Your task to perform on an android device: turn pop-ups on in chrome Image 0: 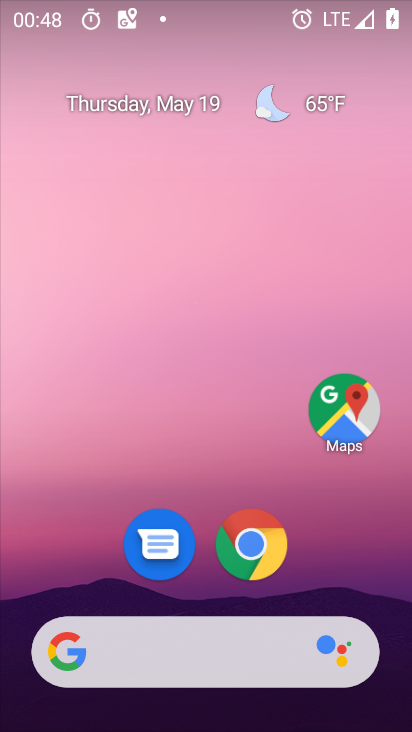
Step 0: drag from (361, 572) to (339, 82)
Your task to perform on an android device: turn pop-ups on in chrome Image 1: 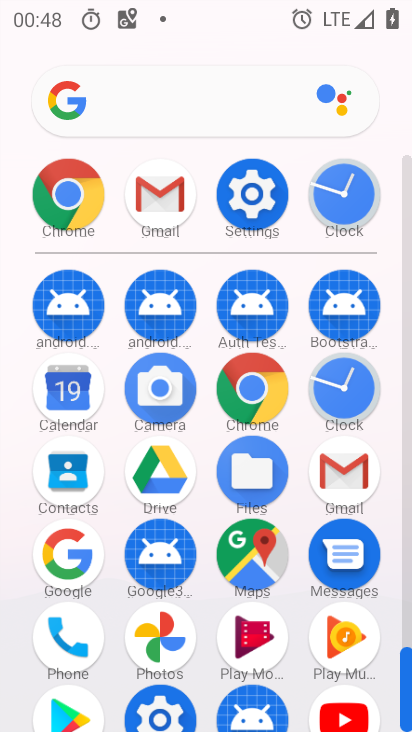
Step 1: click (259, 384)
Your task to perform on an android device: turn pop-ups on in chrome Image 2: 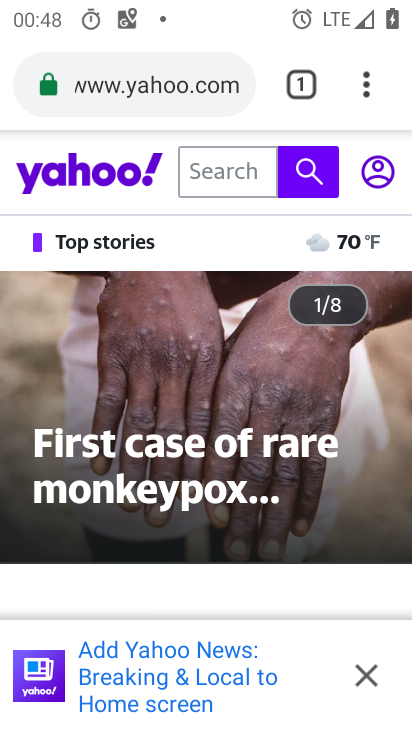
Step 2: click (365, 94)
Your task to perform on an android device: turn pop-ups on in chrome Image 3: 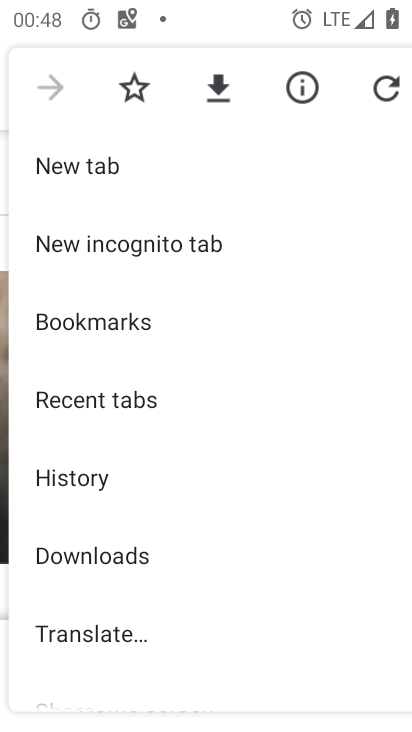
Step 3: drag from (293, 631) to (285, 403)
Your task to perform on an android device: turn pop-ups on in chrome Image 4: 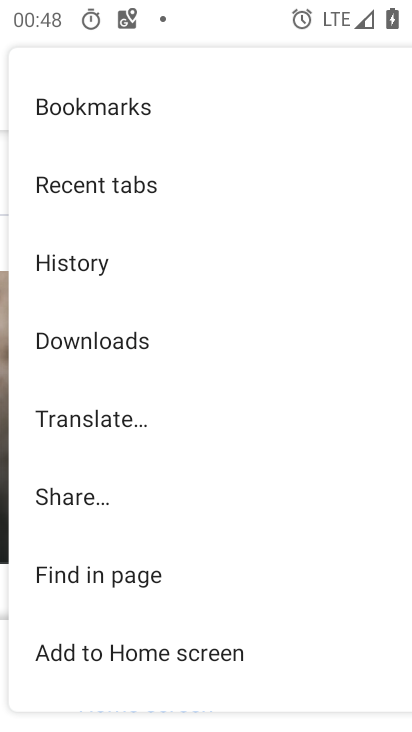
Step 4: drag from (298, 610) to (293, 417)
Your task to perform on an android device: turn pop-ups on in chrome Image 5: 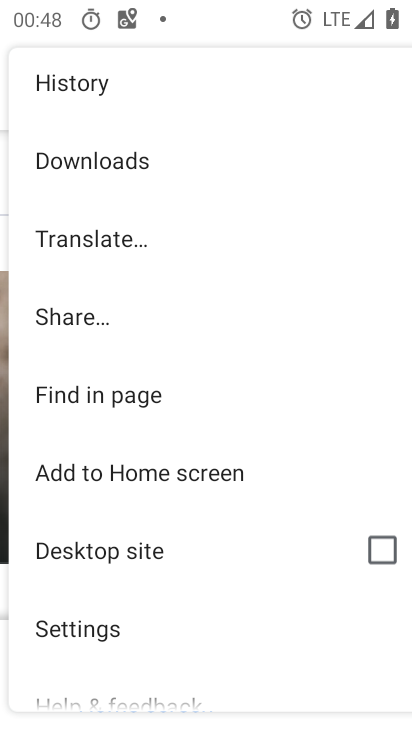
Step 5: drag from (260, 630) to (263, 413)
Your task to perform on an android device: turn pop-ups on in chrome Image 6: 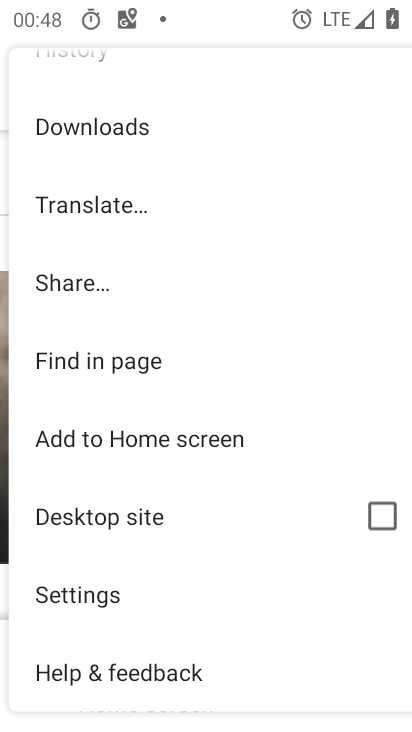
Step 6: drag from (286, 244) to (265, 453)
Your task to perform on an android device: turn pop-ups on in chrome Image 7: 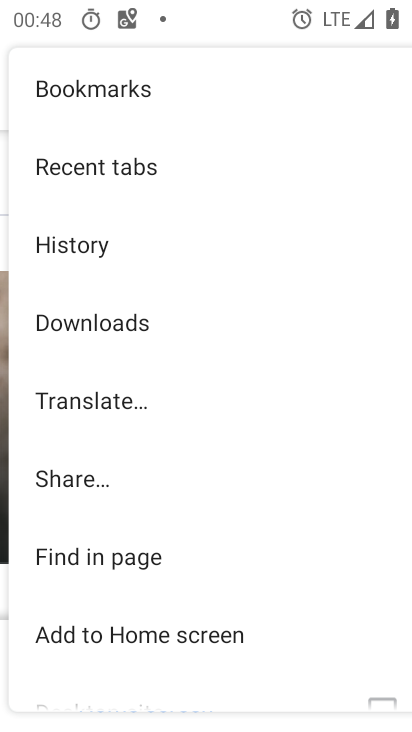
Step 7: drag from (267, 193) to (262, 409)
Your task to perform on an android device: turn pop-ups on in chrome Image 8: 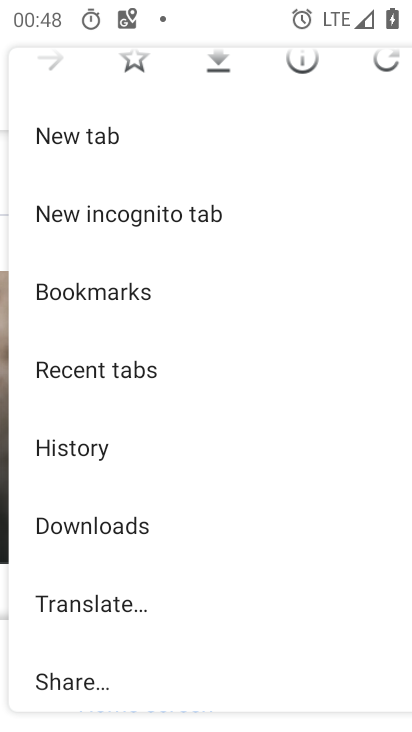
Step 8: drag from (268, 174) to (240, 410)
Your task to perform on an android device: turn pop-ups on in chrome Image 9: 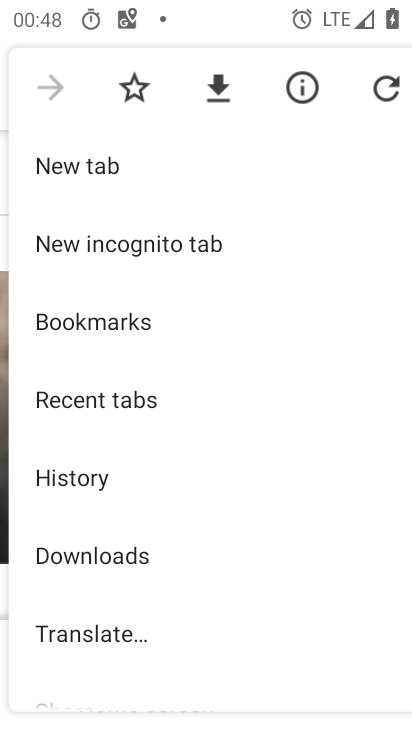
Step 9: drag from (256, 566) to (254, 320)
Your task to perform on an android device: turn pop-ups on in chrome Image 10: 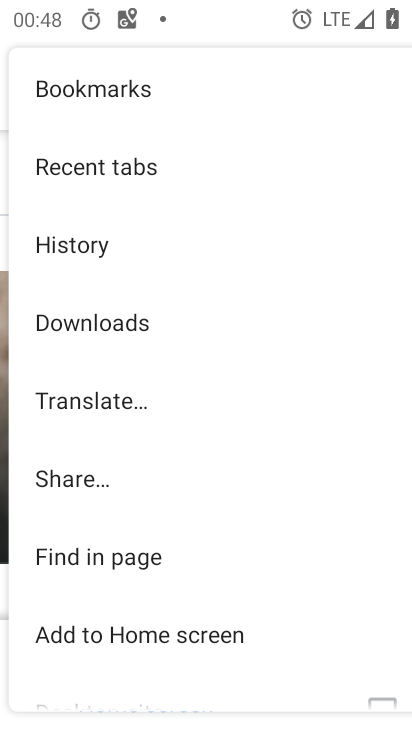
Step 10: drag from (259, 581) to (272, 314)
Your task to perform on an android device: turn pop-ups on in chrome Image 11: 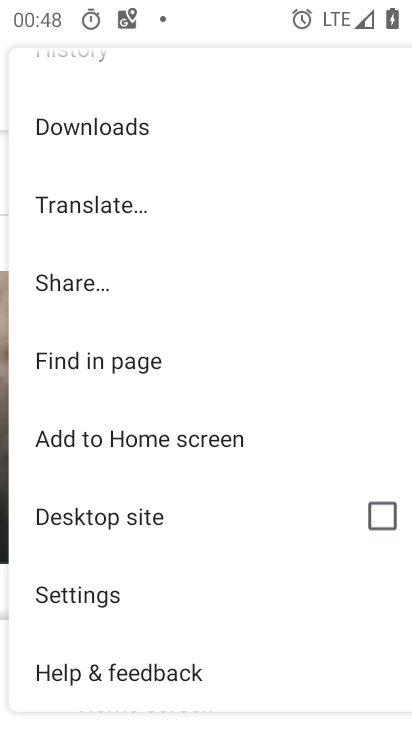
Step 11: drag from (255, 577) to (280, 412)
Your task to perform on an android device: turn pop-ups on in chrome Image 12: 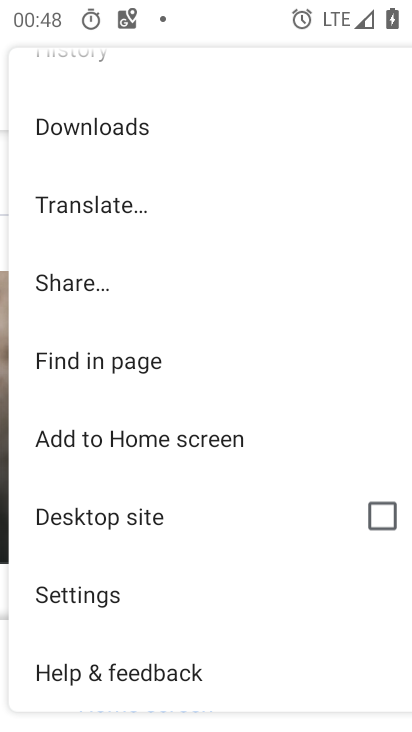
Step 12: click (110, 606)
Your task to perform on an android device: turn pop-ups on in chrome Image 13: 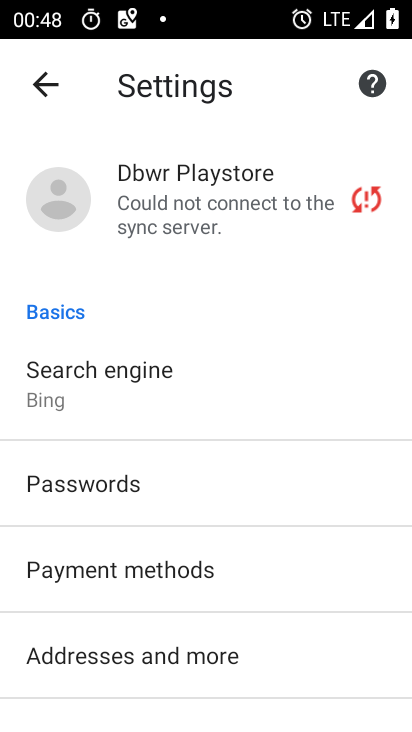
Step 13: drag from (307, 587) to (325, 410)
Your task to perform on an android device: turn pop-ups on in chrome Image 14: 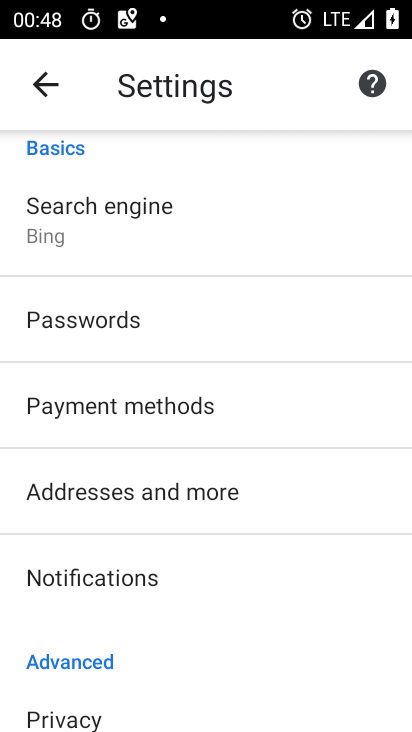
Step 14: drag from (325, 625) to (327, 394)
Your task to perform on an android device: turn pop-ups on in chrome Image 15: 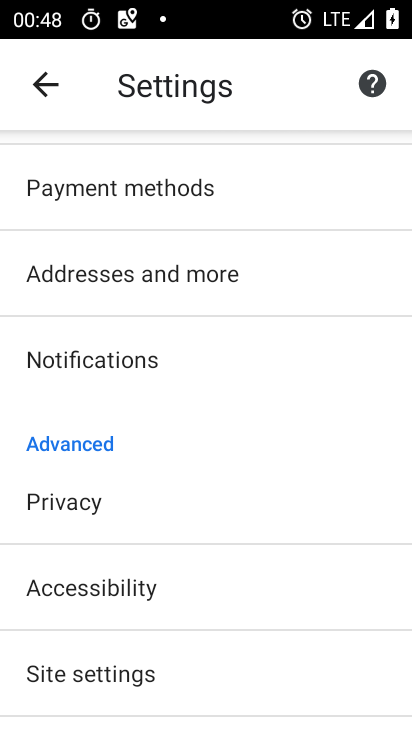
Step 15: drag from (317, 615) to (312, 405)
Your task to perform on an android device: turn pop-ups on in chrome Image 16: 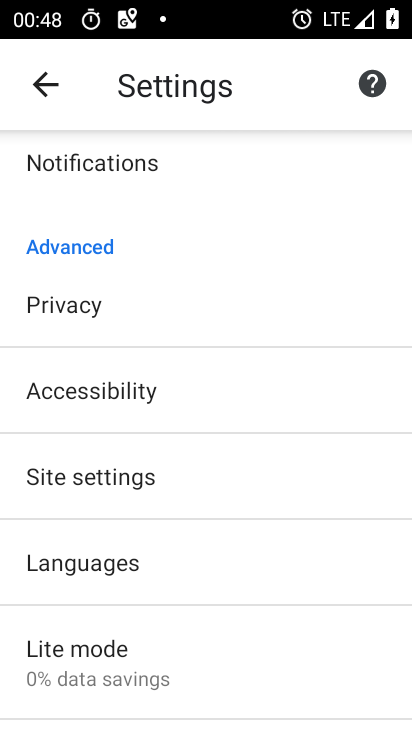
Step 16: drag from (275, 639) to (274, 444)
Your task to perform on an android device: turn pop-ups on in chrome Image 17: 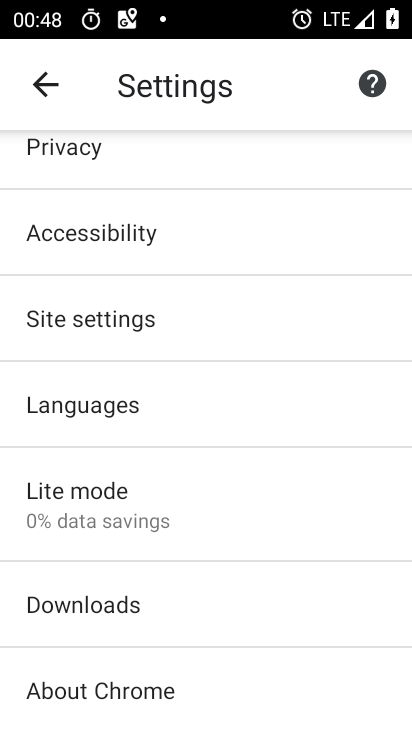
Step 17: drag from (250, 671) to (256, 468)
Your task to perform on an android device: turn pop-ups on in chrome Image 18: 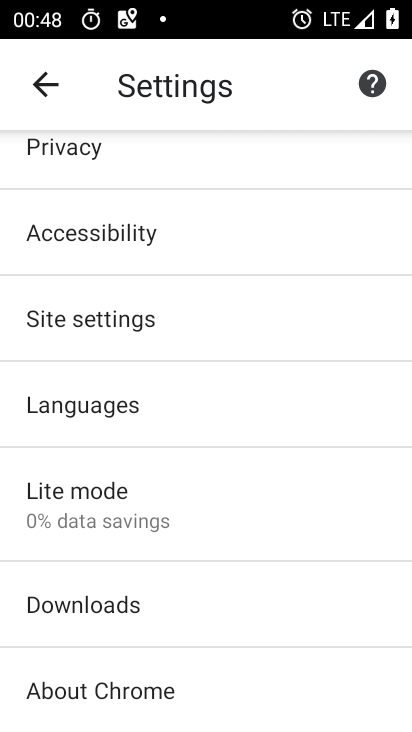
Step 18: drag from (266, 391) to (261, 537)
Your task to perform on an android device: turn pop-ups on in chrome Image 19: 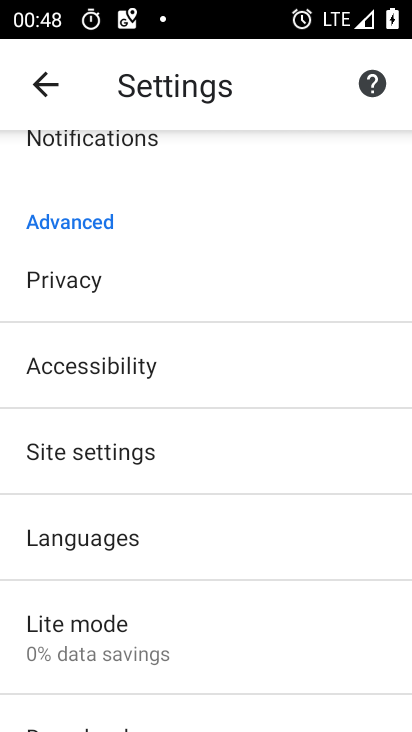
Step 19: drag from (261, 299) to (255, 452)
Your task to perform on an android device: turn pop-ups on in chrome Image 20: 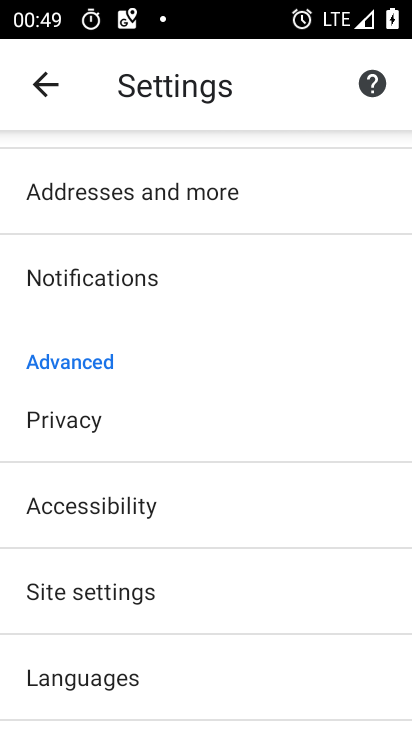
Step 20: drag from (269, 272) to (273, 487)
Your task to perform on an android device: turn pop-ups on in chrome Image 21: 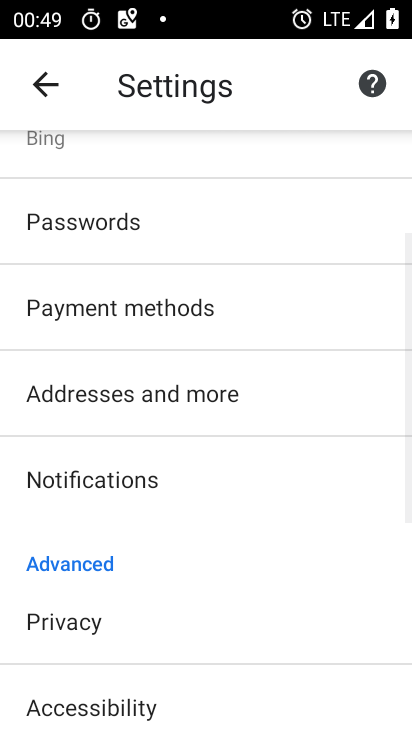
Step 21: drag from (286, 274) to (282, 491)
Your task to perform on an android device: turn pop-ups on in chrome Image 22: 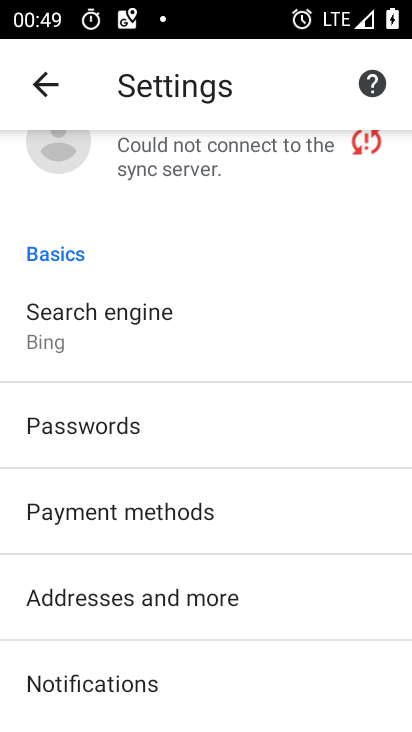
Step 22: drag from (262, 281) to (252, 452)
Your task to perform on an android device: turn pop-ups on in chrome Image 23: 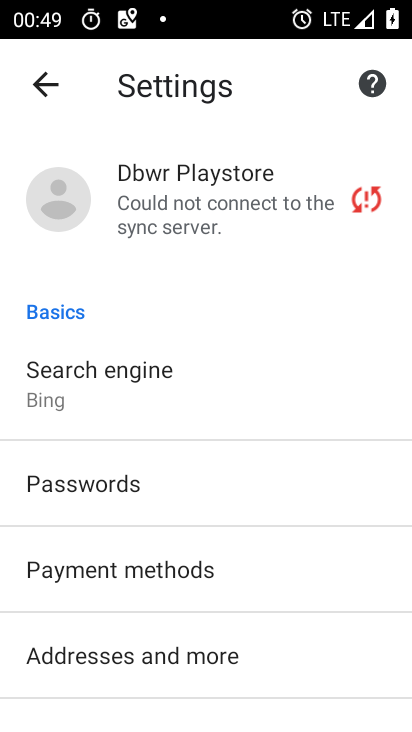
Step 23: drag from (248, 284) to (252, 483)
Your task to perform on an android device: turn pop-ups on in chrome Image 24: 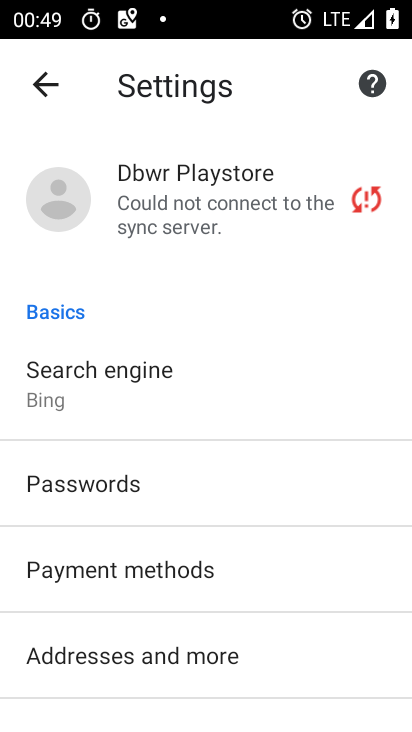
Step 24: drag from (266, 582) to (272, 390)
Your task to perform on an android device: turn pop-ups on in chrome Image 25: 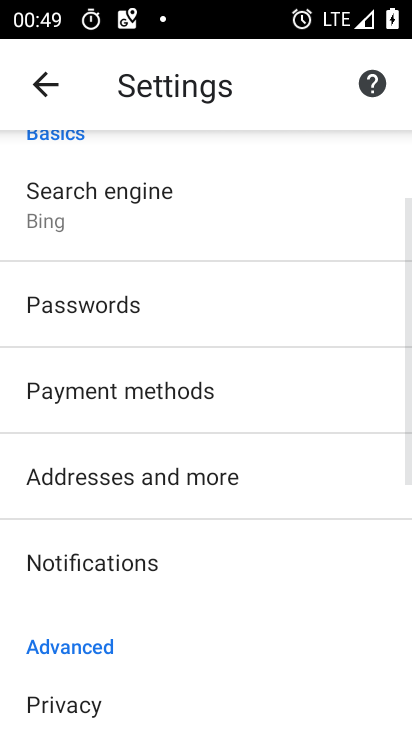
Step 25: drag from (250, 628) to (273, 402)
Your task to perform on an android device: turn pop-ups on in chrome Image 26: 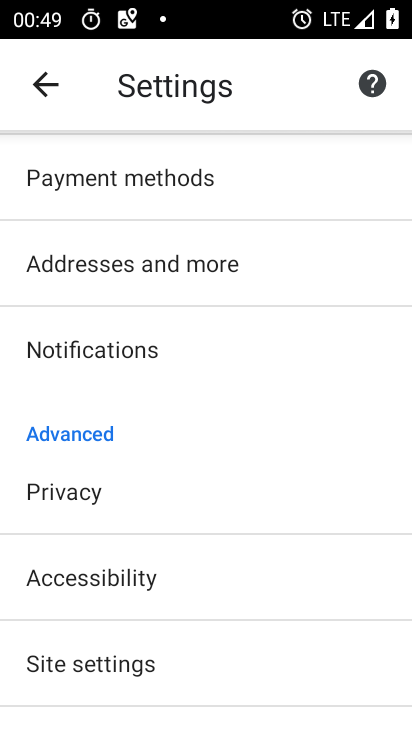
Step 26: drag from (268, 597) to (271, 470)
Your task to perform on an android device: turn pop-ups on in chrome Image 27: 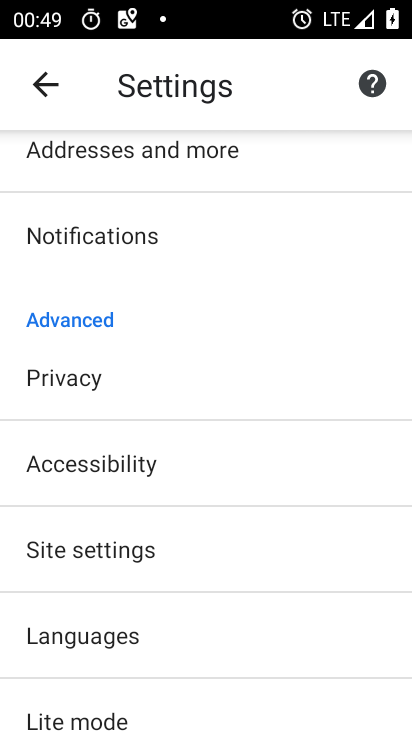
Step 27: click (223, 544)
Your task to perform on an android device: turn pop-ups on in chrome Image 28: 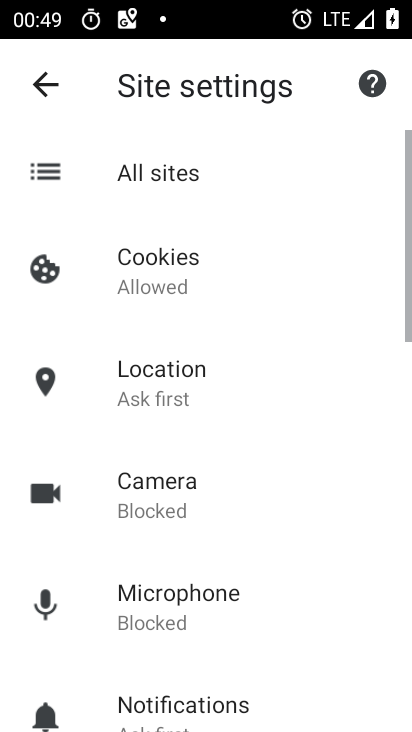
Step 28: drag from (270, 649) to (308, 386)
Your task to perform on an android device: turn pop-ups on in chrome Image 29: 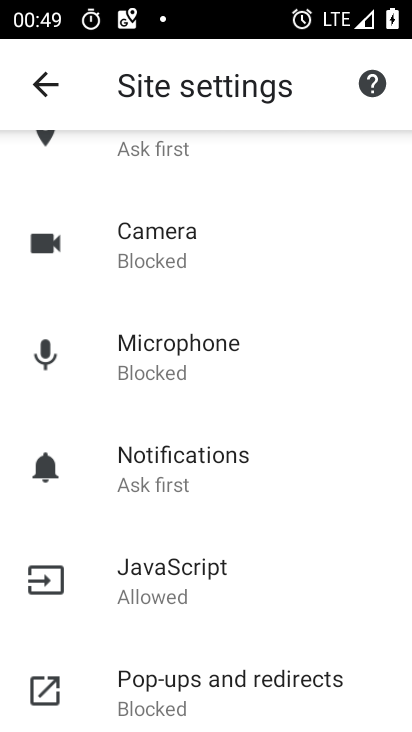
Step 29: drag from (292, 617) to (298, 406)
Your task to perform on an android device: turn pop-ups on in chrome Image 30: 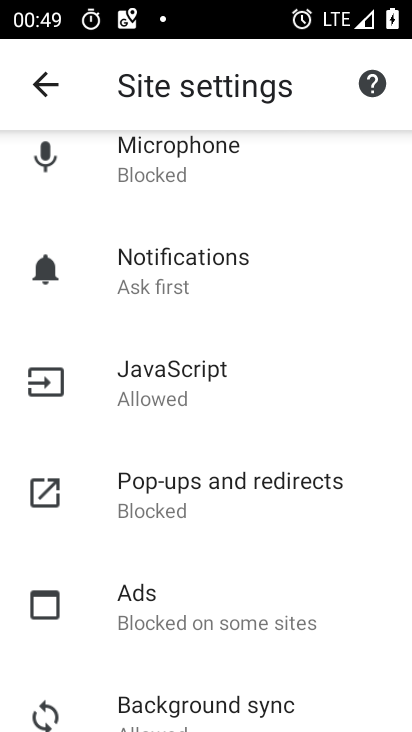
Step 30: drag from (272, 592) to (274, 389)
Your task to perform on an android device: turn pop-ups on in chrome Image 31: 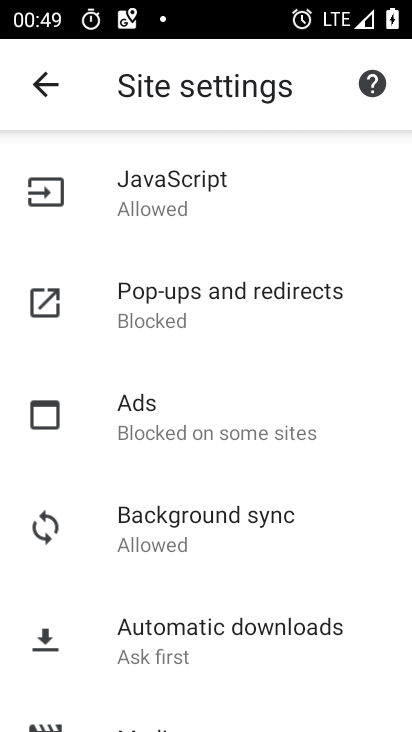
Step 31: drag from (261, 667) to (273, 501)
Your task to perform on an android device: turn pop-ups on in chrome Image 32: 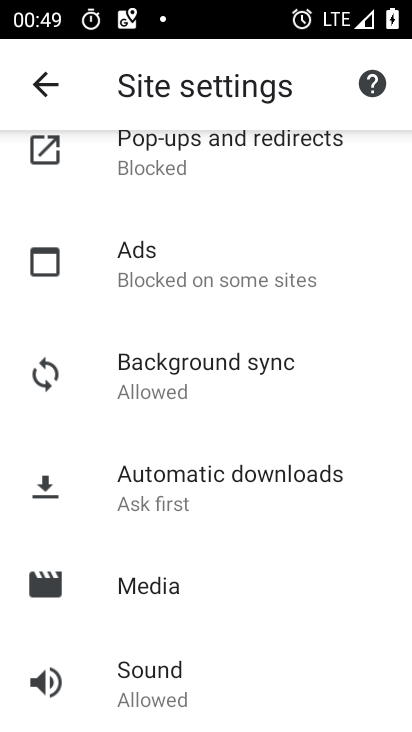
Step 32: drag from (353, 314) to (338, 466)
Your task to perform on an android device: turn pop-ups on in chrome Image 33: 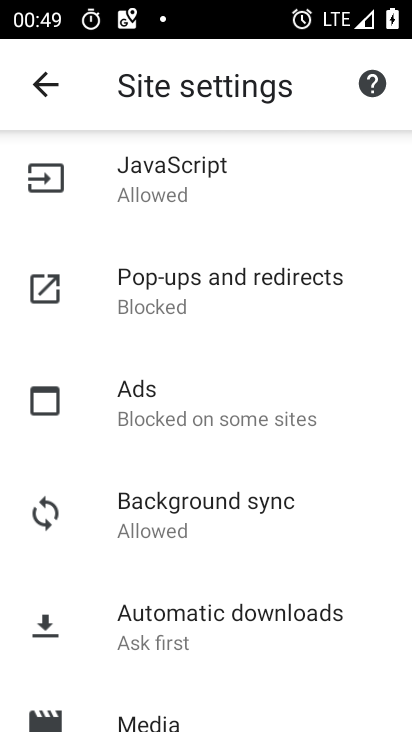
Step 33: drag from (365, 247) to (369, 427)
Your task to perform on an android device: turn pop-ups on in chrome Image 34: 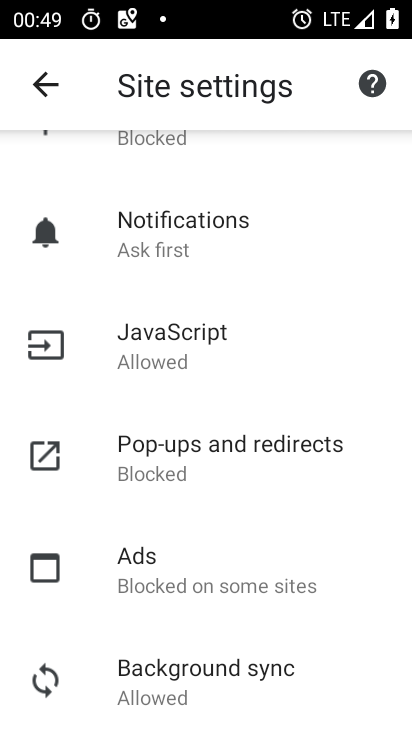
Step 34: drag from (326, 275) to (304, 387)
Your task to perform on an android device: turn pop-ups on in chrome Image 35: 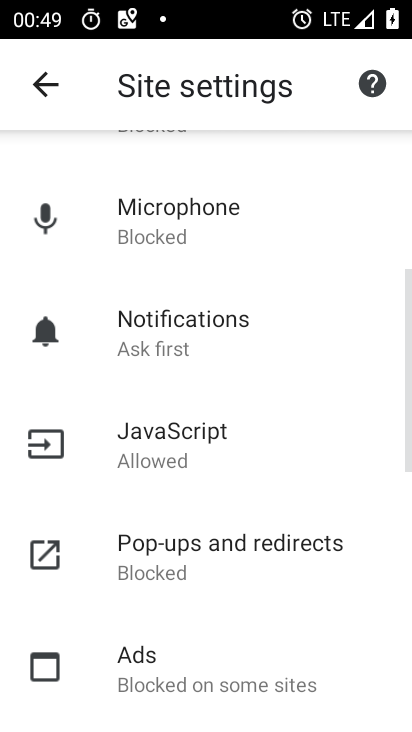
Step 35: drag from (317, 233) to (317, 390)
Your task to perform on an android device: turn pop-ups on in chrome Image 36: 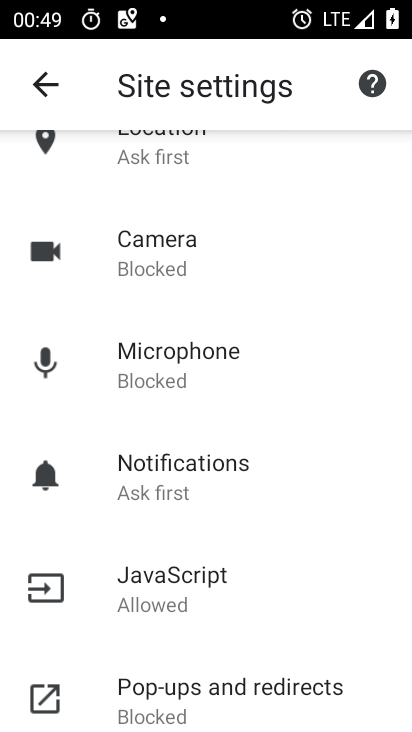
Step 36: drag from (314, 226) to (304, 368)
Your task to perform on an android device: turn pop-ups on in chrome Image 37: 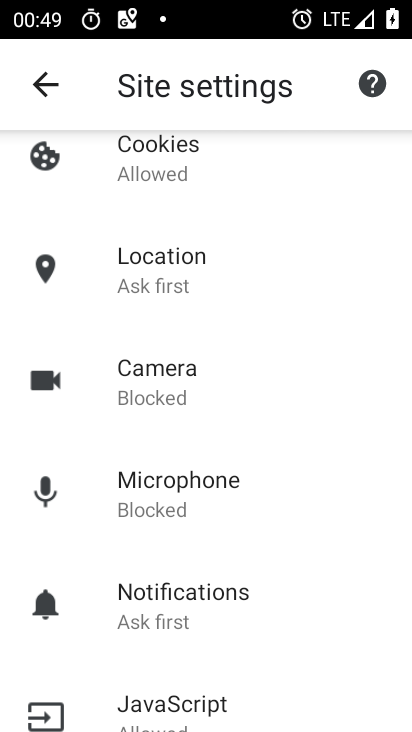
Step 37: drag from (301, 231) to (287, 432)
Your task to perform on an android device: turn pop-ups on in chrome Image 38: 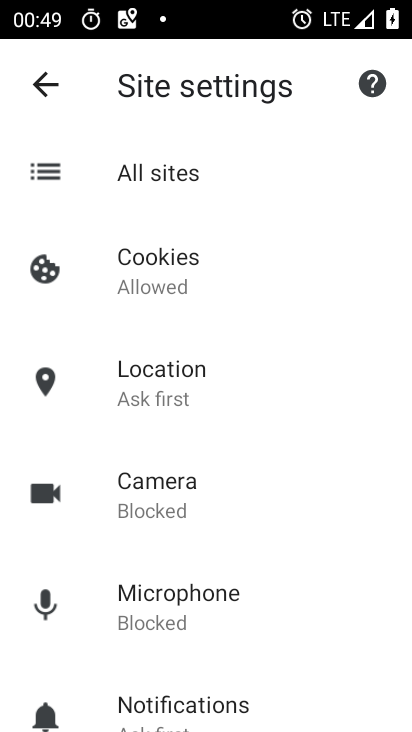
Step 38: drag from (290, 473) to (296, 259)
Your task to perform on an android device: turn pop-ups on in chrome Image 39: 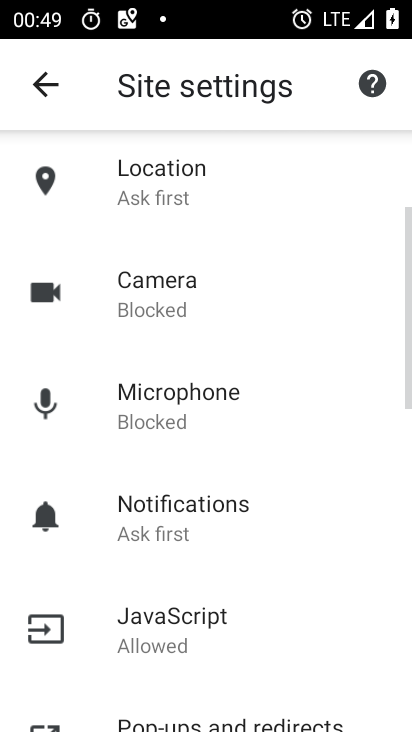
Step 39: drag from (307, 545) to (318, 356)
Your task to perform on an android device: turn pop-ups on in chrome Image 40: 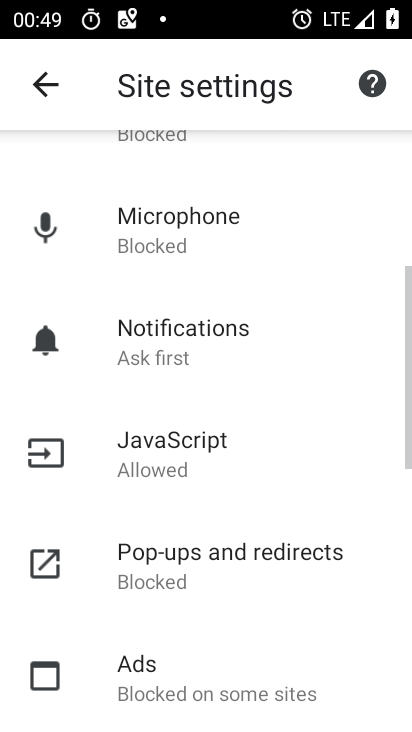
Step 40: drag from (289, 631) to (299, 440)
Your task to perform on an android device: turn pop-ups on in chrome Image 41: 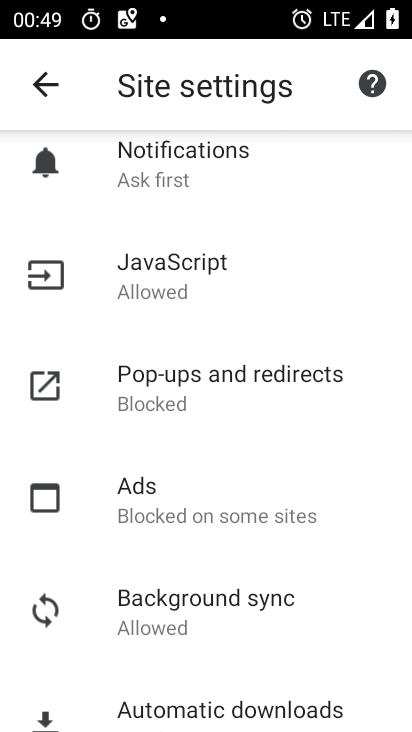
Step 41: click (212, 379)
Your task to perform on an android device: turn pop-ups on in chrome Image 42: 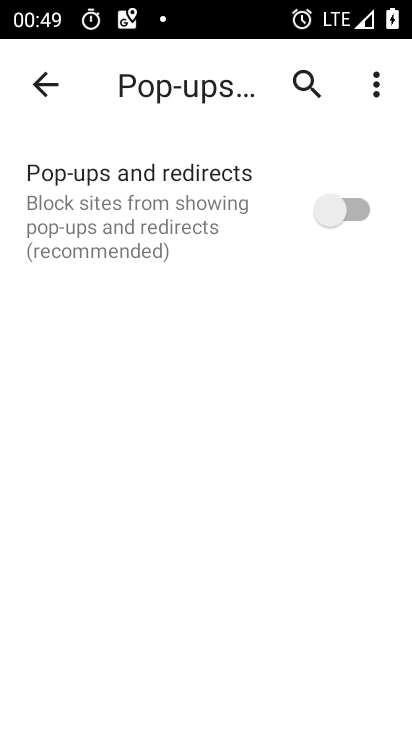
Step 42: click (352, 202)
Your task to perform on an android device: turn pop-ups on in chrome Image 43: 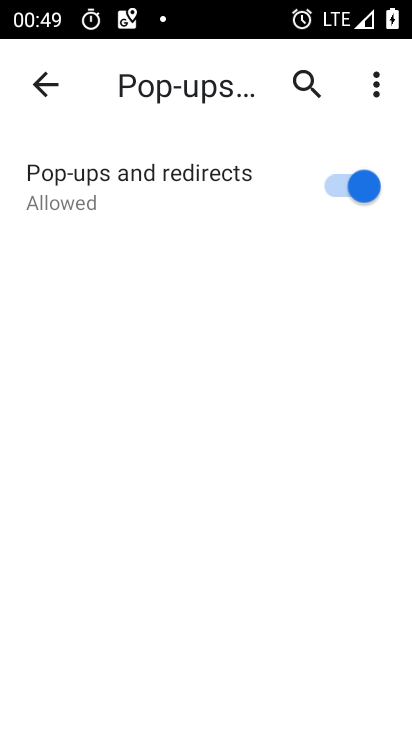
Step 43: task complete